Your task to perform on an android device: change your default location settings in chrome Image 0: 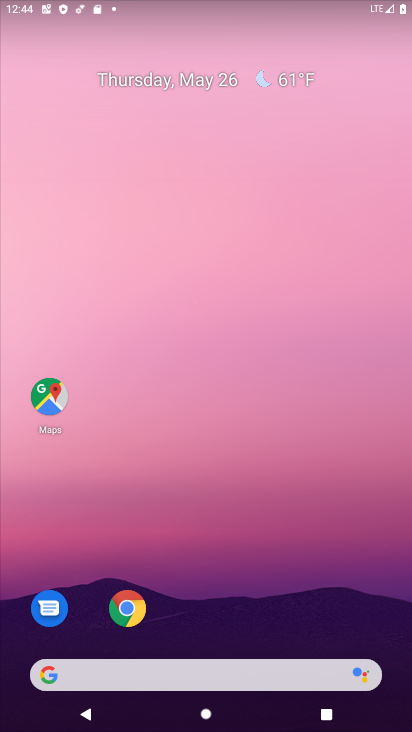
Step 0: click (127, 613)
Your task to perform on an android device: change your default location settings in chrome Image 1: 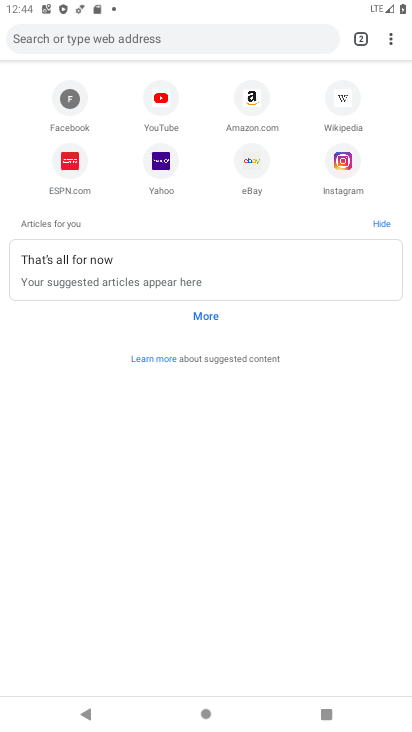
Step 1: click (388, 42)
Your task to perform on an android device: change your default location settings in chrome Image 2: 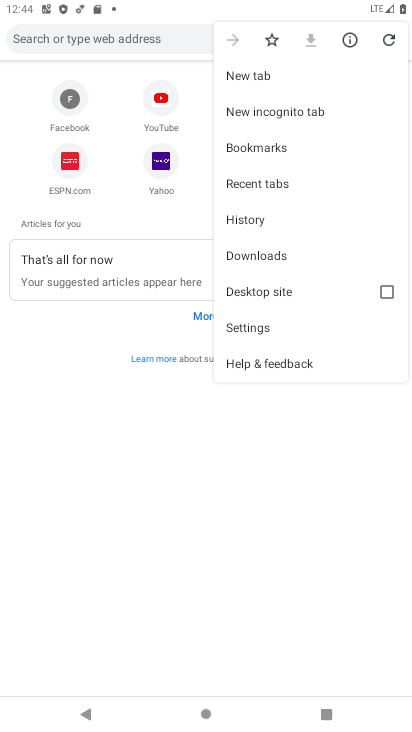
Step 2: click (262, 313)
Your task to perform on an android device: change your default location settings in chrome Image 3: 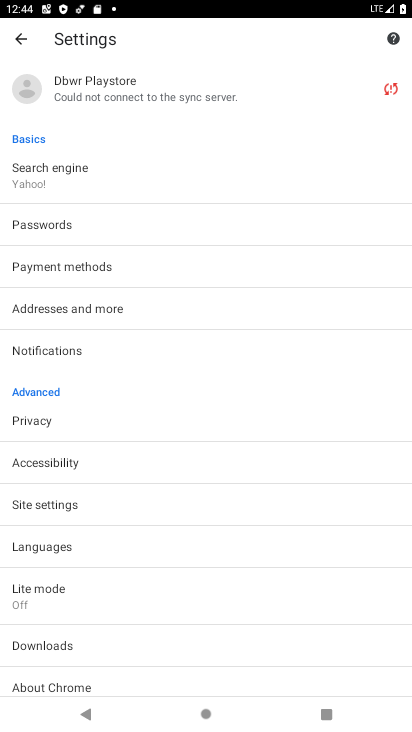
Step 3: click (58, 502)
Your task to perform on an android device: change your default location settings in chrome Image 4: 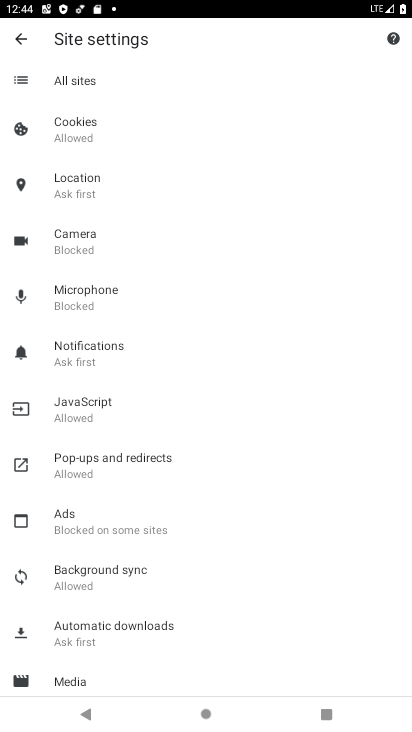
Step 4: click (63, 171)
Your task to perform on an android device: change your default location settings in chrome Image 5: 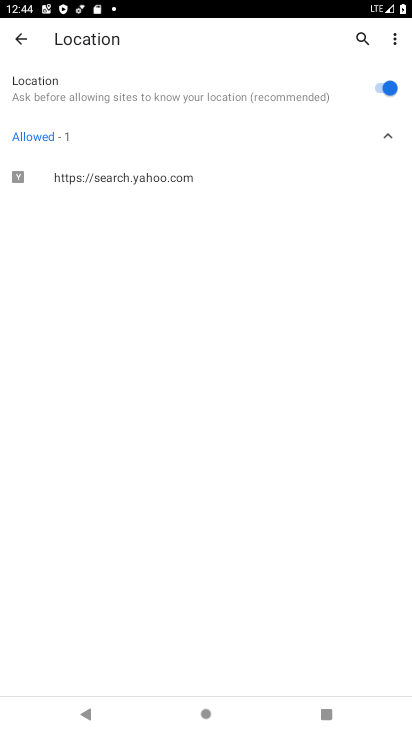
Step 5: click (373, 85)
Your task to perform on an android device: change your default location settings in chrome Image 6: 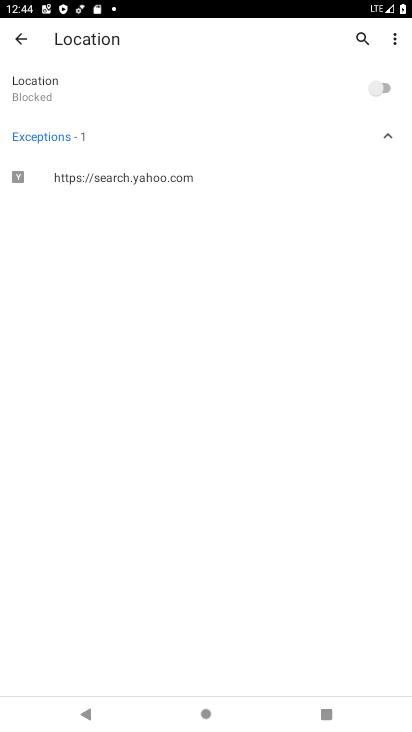
Step 6: task complete